Your task to perform on an android device: Do I have any events this weekend? Image 0: 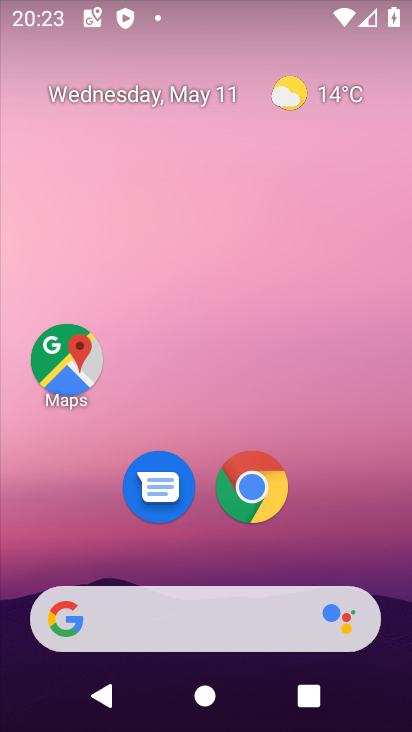
Step 0: drag from (182, 521) to (210, 64)
Your task to perform on an android device: Do I have any events this weekend? Image 1: 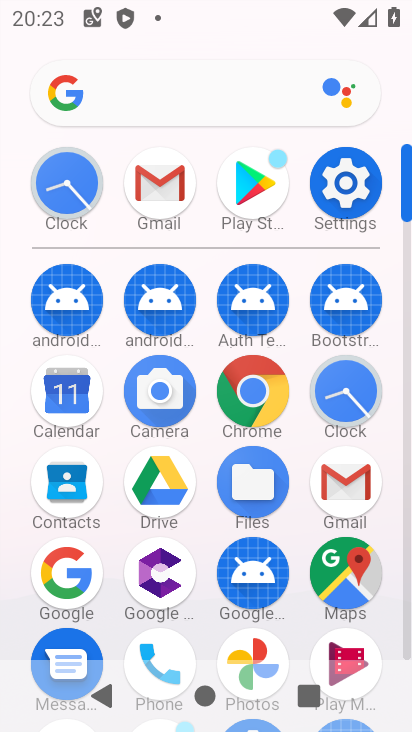
Step 1: click (73, 407)
Your task to perform on an android device: Do I have any events this weekend? Image 2: 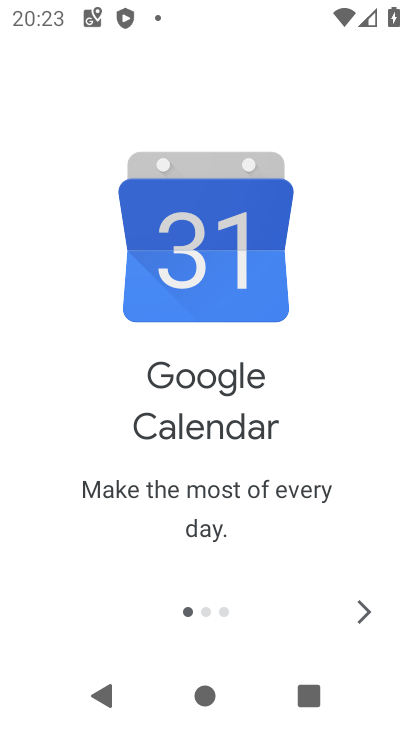
Step 2: click (354, 623)
Your task to perform on an android device: Do I have any events this weekend? Image 3: 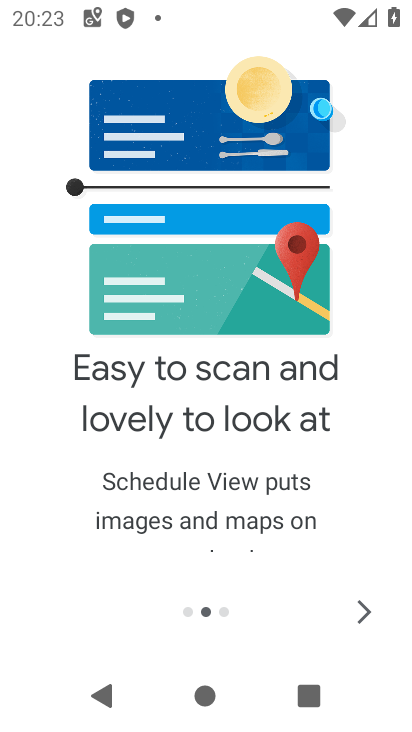
Step 3: click (355, 622)
Your task to perform on an android device: Do I have any events this weekend? Image 4: 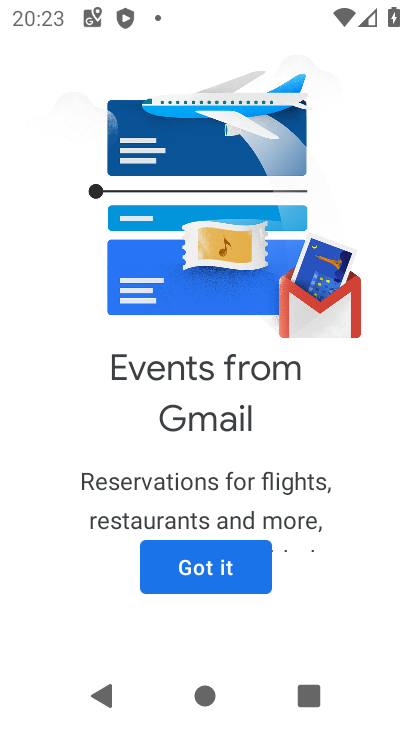
Step 4: click (241, 584)
Your task to perform on an android device: Do I have any events this weekend? Image 5: 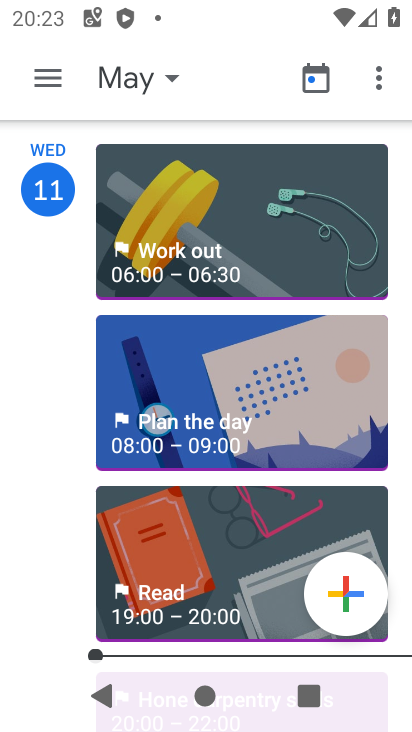
Step 5: click (138, 77)
Your task to perform on an android device: Do I have any events this weekend? Image 6: 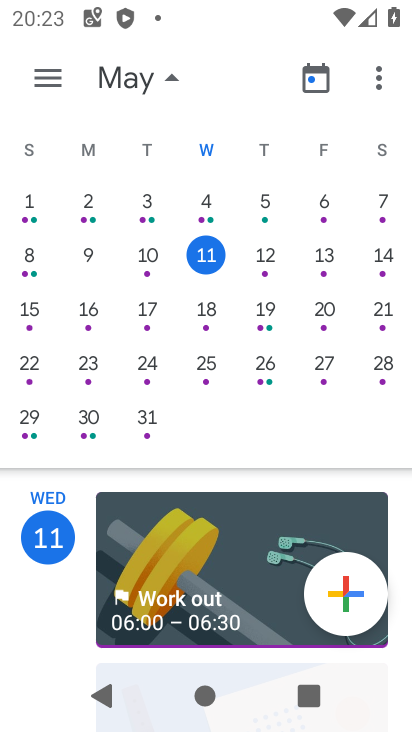
Step 6: click (329, 265)
Your task to perform on an android device: Do I have any events this weekend? Image 7: 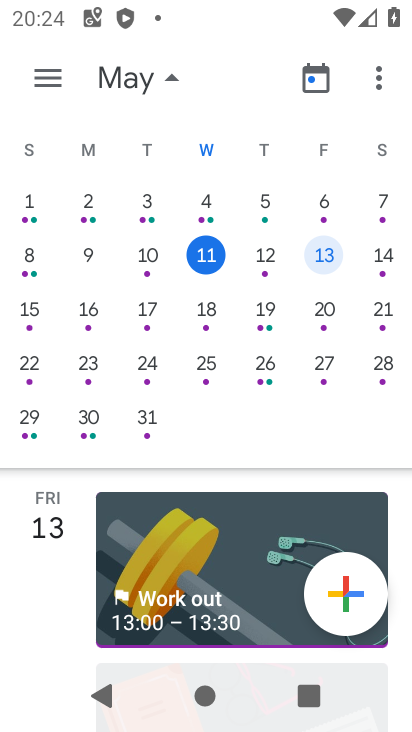
Step 7: click (386, 255)
Your task to perform on an android device: Do I have any events this weekend? Image 8: 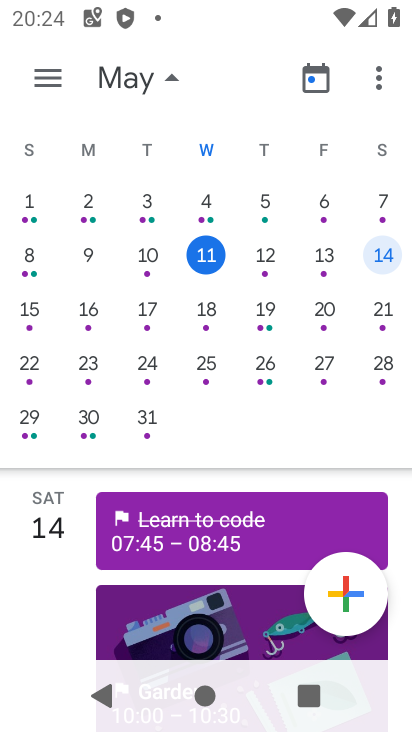
Step 8: drag from (200, 609) to (209, 360)
Your task to perform on an android device: Do I have any events this weekend? Image 9: 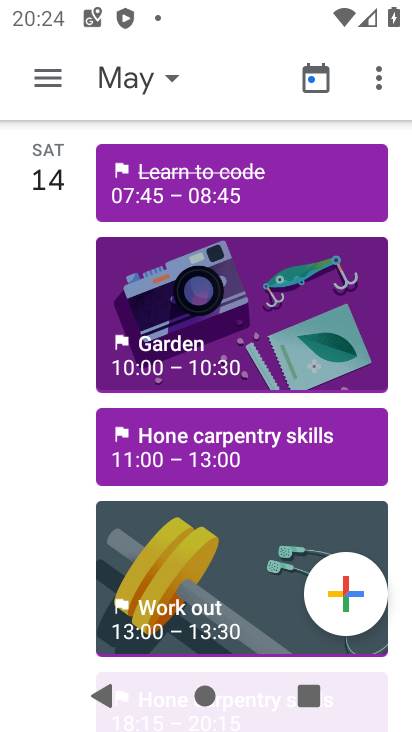
Step 9: click (207, 431)
Your task to perform on an android device: Do I have any events this weekend? Image 10: 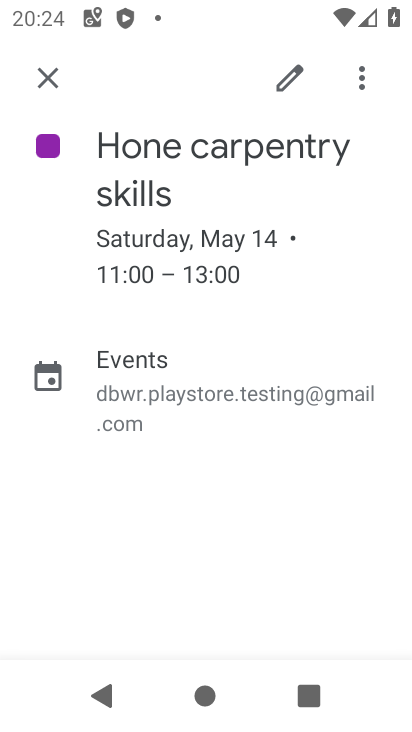
Step 10: click (49, 72)
Your task to perform on an android device: Do I have any events this weekend? Image 11: 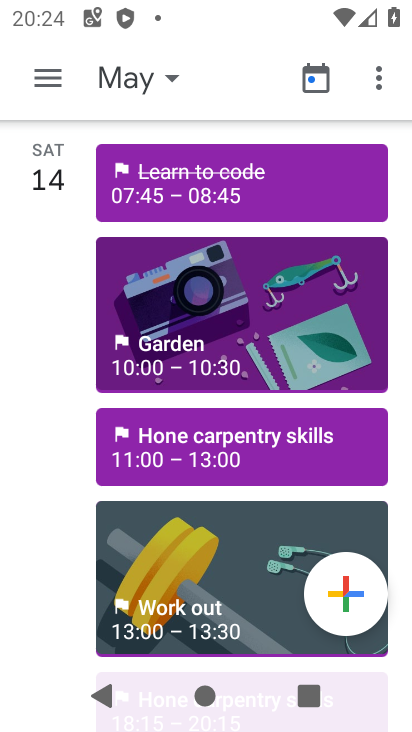
Step 11: task complete